Your task to perform on an android device: Go to Amazon Image 0: 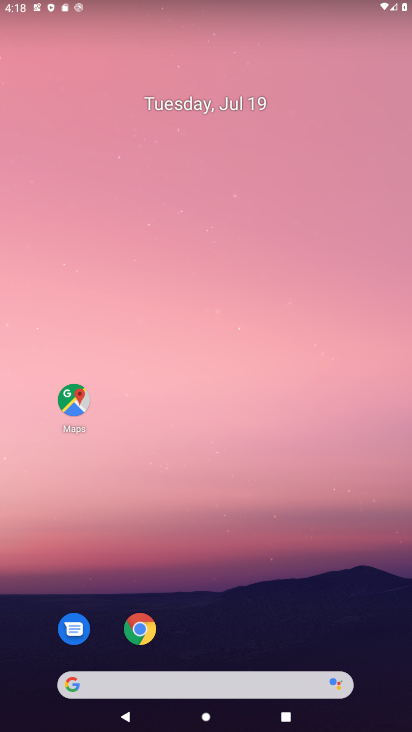
Step 0: drag from (171, 600) to (216, 304)
Your task to perform on an android device: Go to Amazon Image 1: 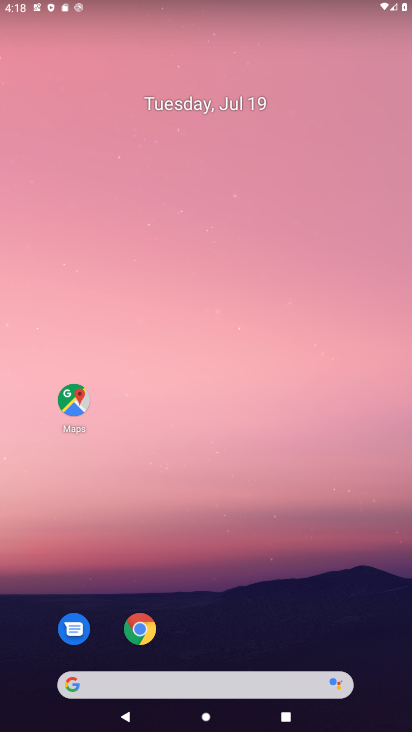
Step 1: drag from (195, 627) to (272, 202)
Your task to perform on an android device: Go to Amazon Image 2: 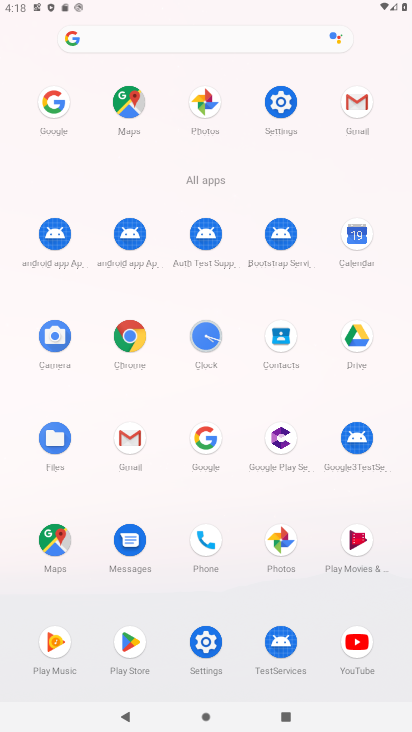
Step 2: click (207, 424)
Your task to perform on an android device: Go to Amazon Image 3: 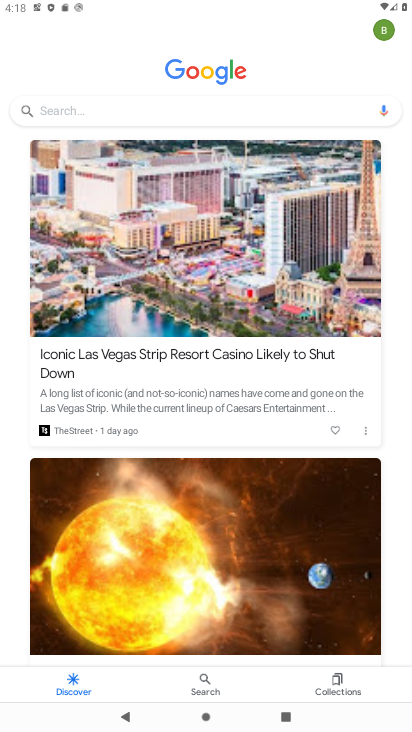
Step 3: click (65, 122)
Your task to perform on an android device: Go to Amazon Image 4: 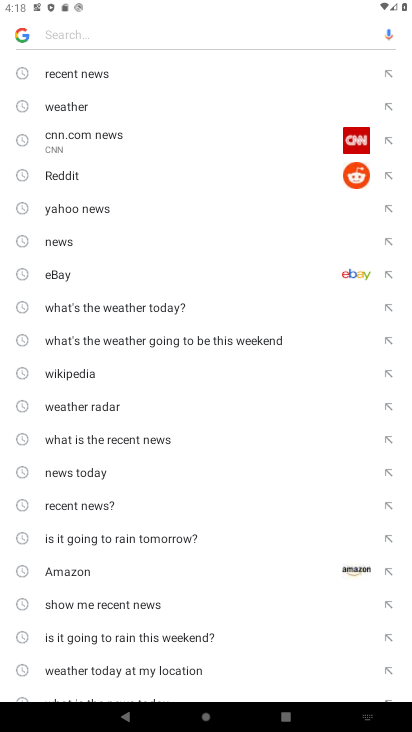
Step 4: drag from (100, 570) to (124, 203)
Your task to perform on an android device: Go to Amazon Image 5: 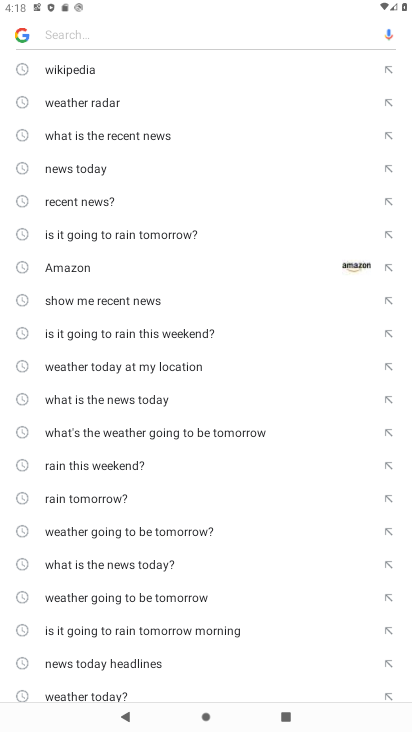
Step 5: click (54, 271)
Your task to perform on an android device: Go to Amazon Image 6: 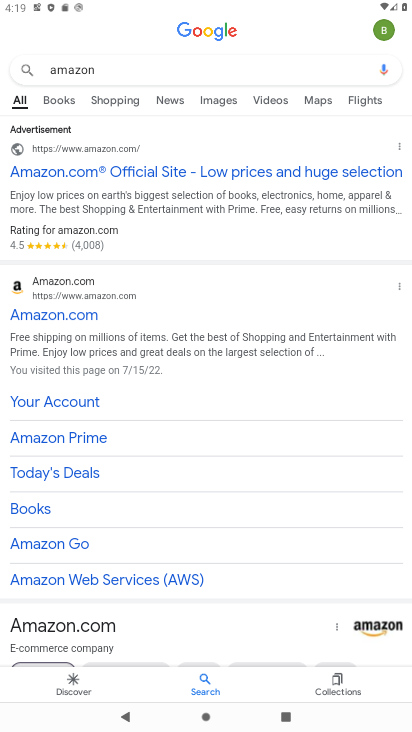
Step 6: click (152, 162)
Your task to perform on an android device: Go to Amazon Image 7: 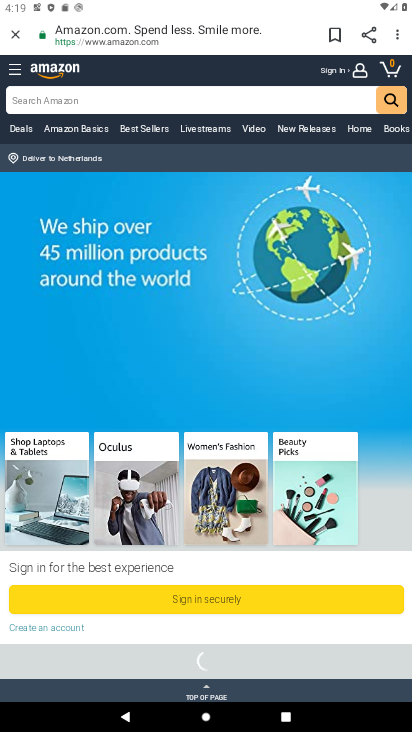
Step 7: task complete